Your task to perform on an android device: turn on showing notifications on the lock screen Image 0: 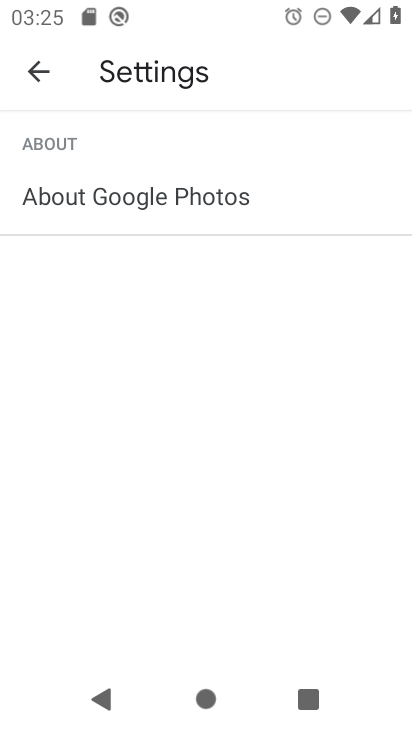
Step 0: press home button
Your task to perform on an android device: turn on showing notifications on the lock screen Image 1: 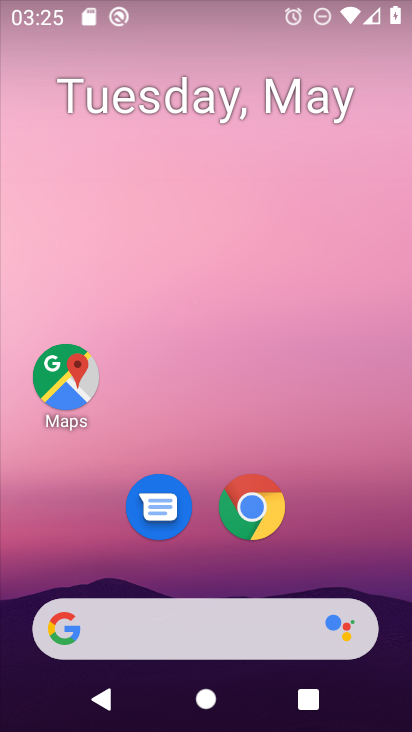
Step 1: drag from (192, 570) to (262, 78)
Your task to perform on an android device: turn on showing notifications on the lock screen Image 2: 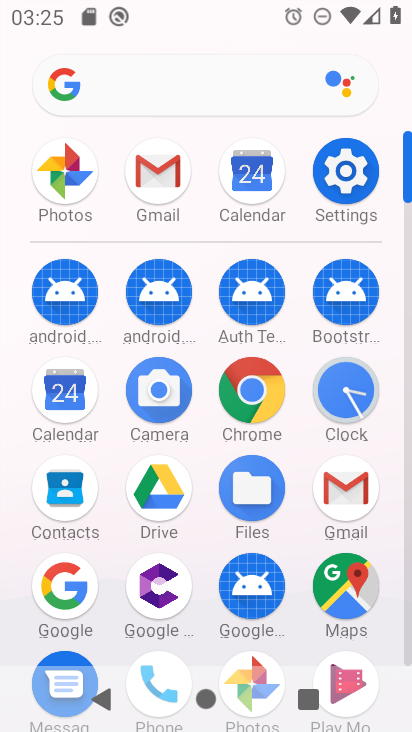
Step 2: click (338, 178)
Your task to perform on an android device: turn on showing notifications on the lock screen Image 3: 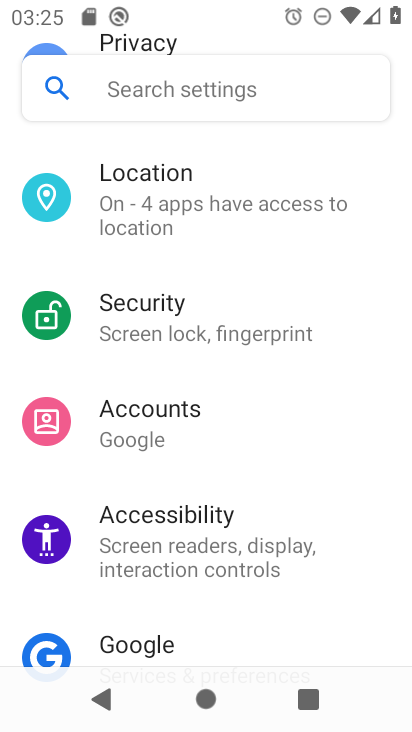
Step 3: drag from (225, 259) to (220, 505)
Your task to perform on an android device: turn on showing notifications on the lock screen Image 4: 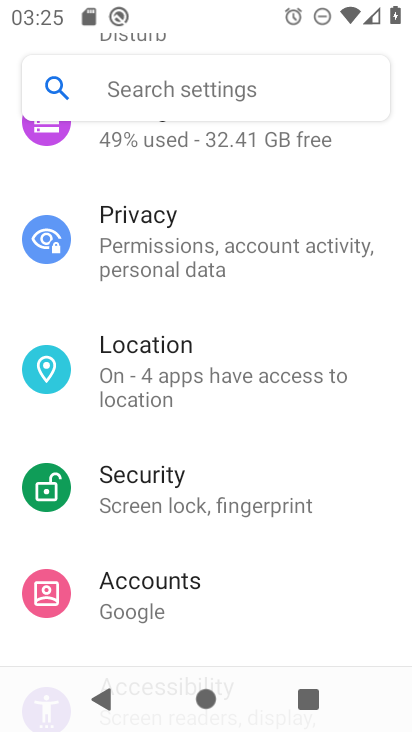
Step 4: drag from (206, 262) to (232, 483)
Your task to perform on an android device: turn on showing notifications on the lock screen Image 5: 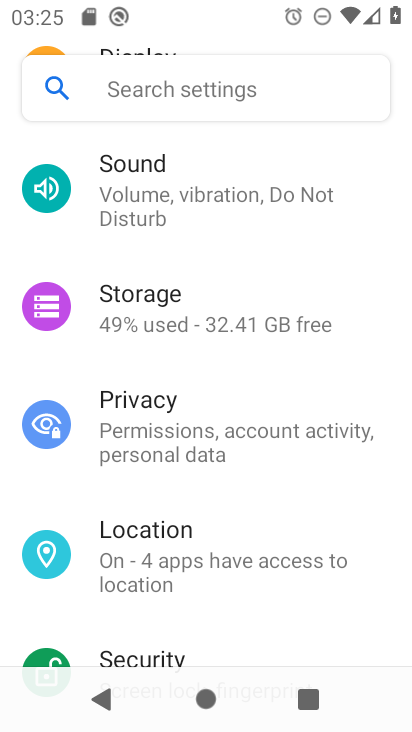
Step 5: drag from (194, 262) to (205, 460)
Your task to perform on an android device: turn on showing notifications on the lock screen Image 6: 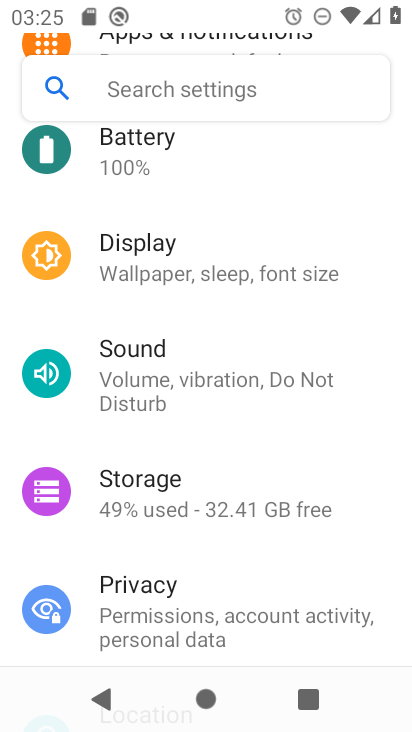
Step 6: drag from (200, 259) to (209, 519)
Your task to perform on an android device: turn on showing notifications on the lock screen Image 7: 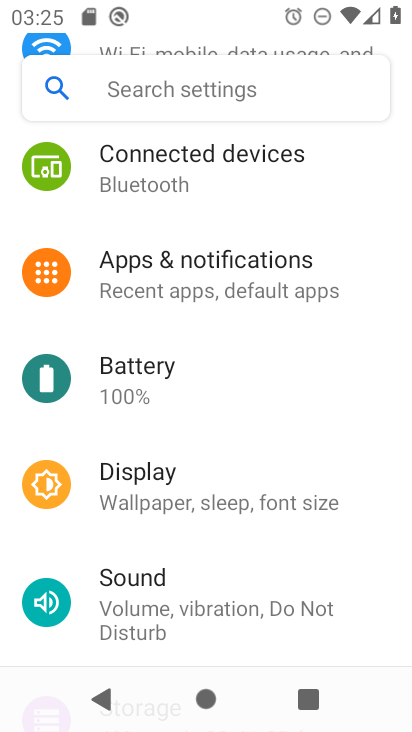
Step 7: click (196, 267)
Your task to perform on an android device: turn on showing notifications on the lock screen Image 8: 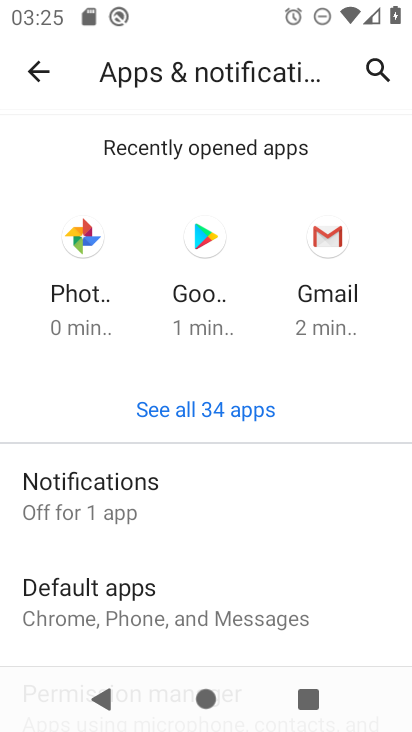
Step 8: click (153, 497)
Your task to perform on an android device: turn on showing notifications on the lock screen Image 9: 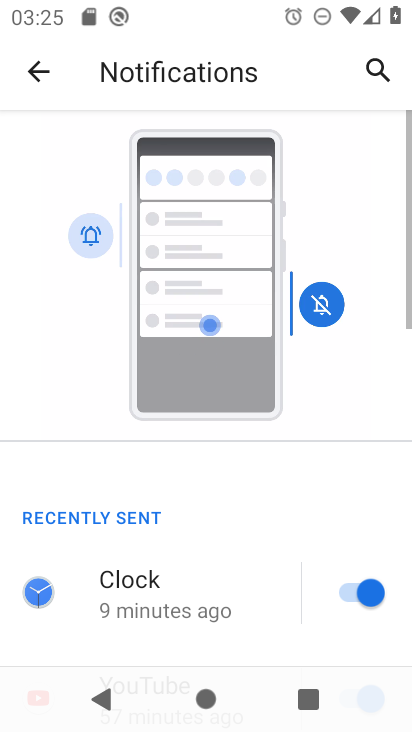
Step 9: drag from (172, 563) to (196, 243)
Your task to perform on an android device: turn on showing notifications on the lock screen Image 10: 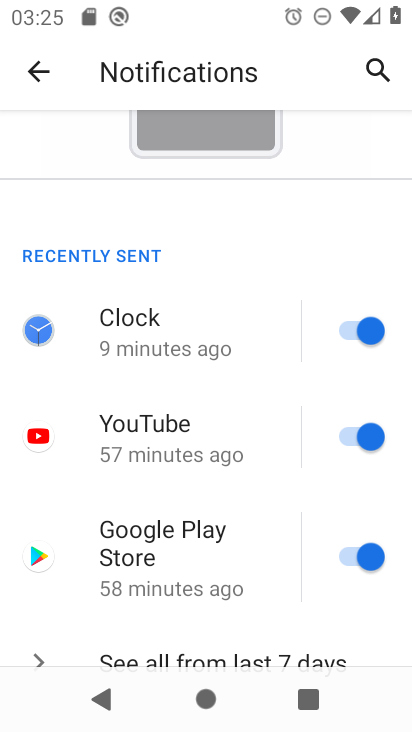
Step 10: drag from (197, 516) to (206, 252)
Your task to perform on an android device: turn on showing notifications on the lock screen Image 11: 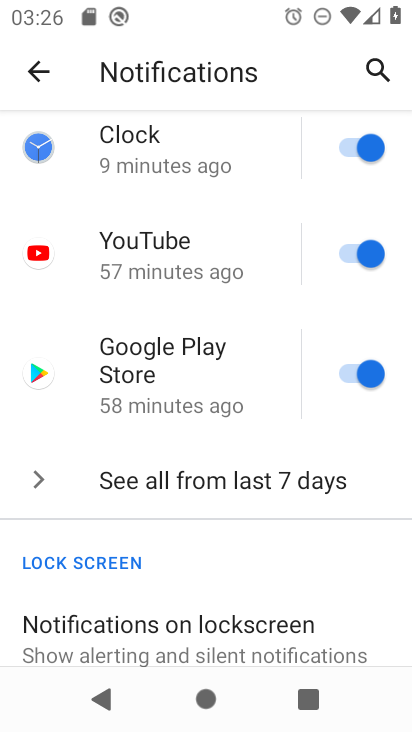
Step 11: drag from (206, 560) to (210, 395)
Your task to perform on an android device: turn on showing notifications on the lock screen Image 12: 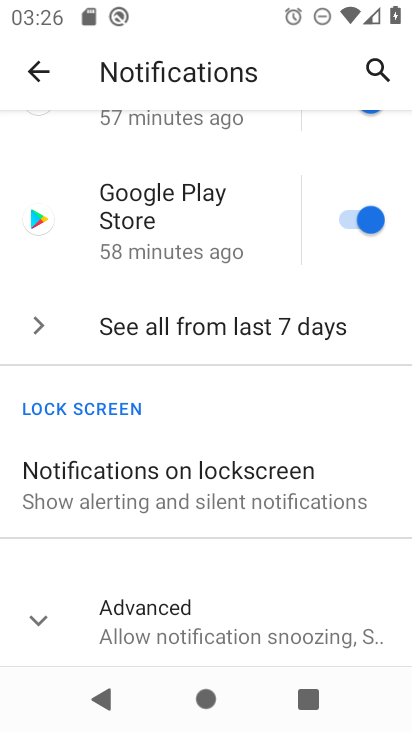
Step 12: click (210, 480)
Your task to perform on an android device: turn on showing notifications on the lock screen Image 13: 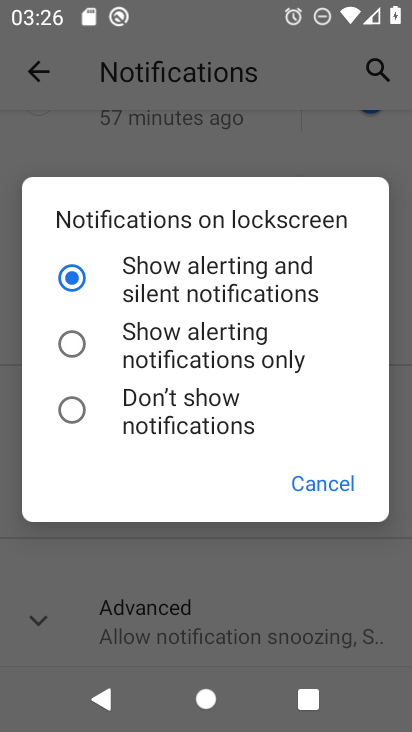
Step 13: task complete